Your task to perform on an android device: Is it going to rain today? Image 0: 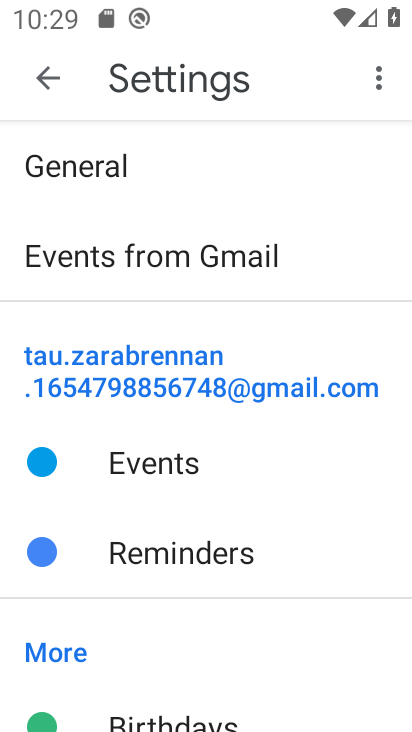
Step 0: press home button
Your task to perform on an android device: Is it going to rain today? Image 1: 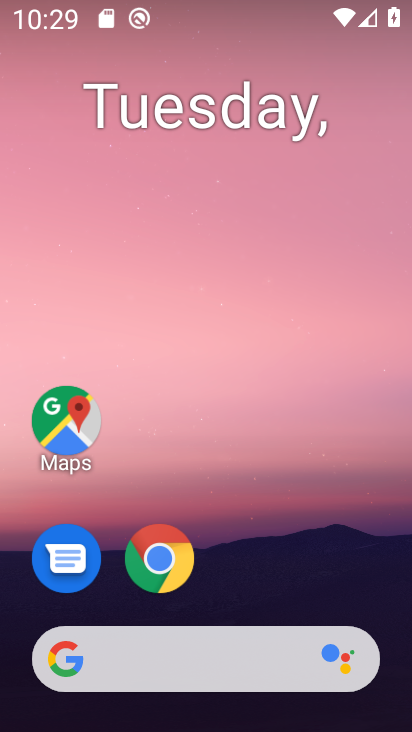
Step 1: click (228, 657)
Your task to perform on an android device: Is it going to rain today? Image 2: 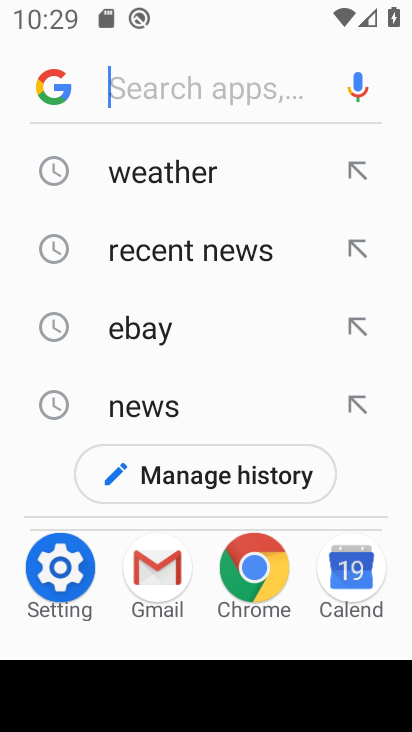
Step 2: click (189, 174)
Your task to perform on an android device: Is it going to rain today? Image 3: 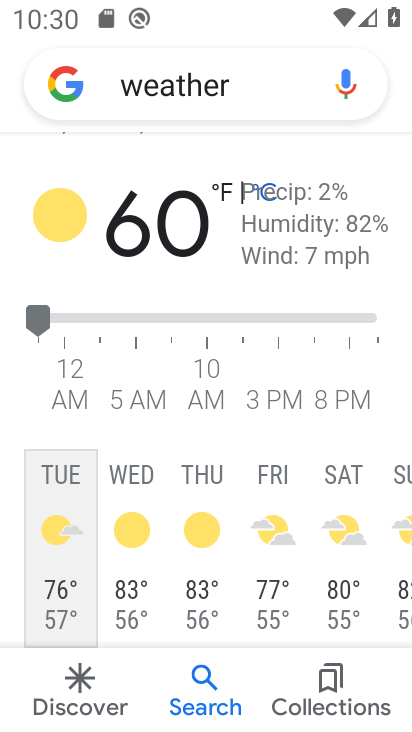
Step 3: click (141, 481)
Your task to perform on an android device: Is it going to rain today? Image 4: 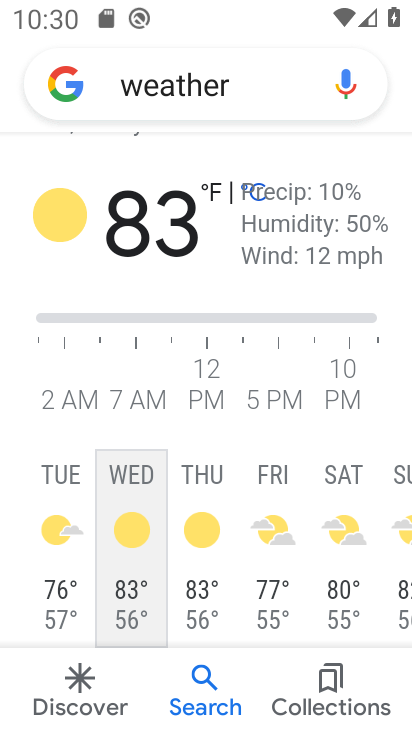
Step 4: task complete